Your task to perform on an android device: Go to Wikipedia Image 0: 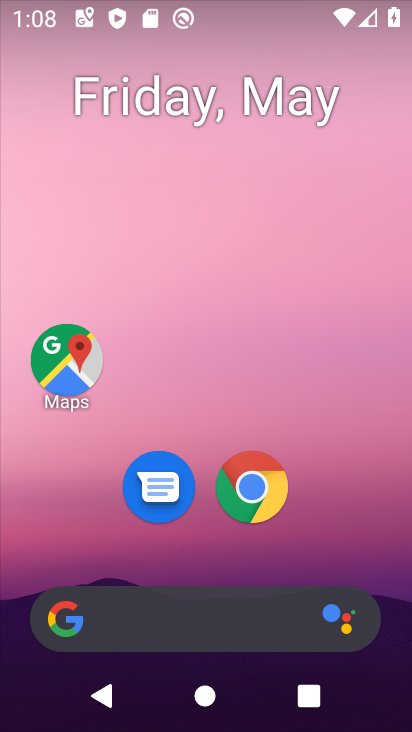
Step 0: click (208, 629)
Your task to perform on an android device: Go to Wikipedia Image 1: 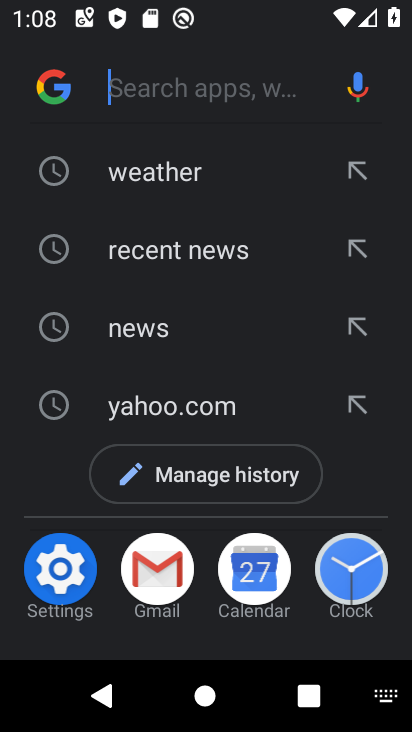
Step 1: press home button
Your task to perform on an android device: Go to Wikipedia Image 2: 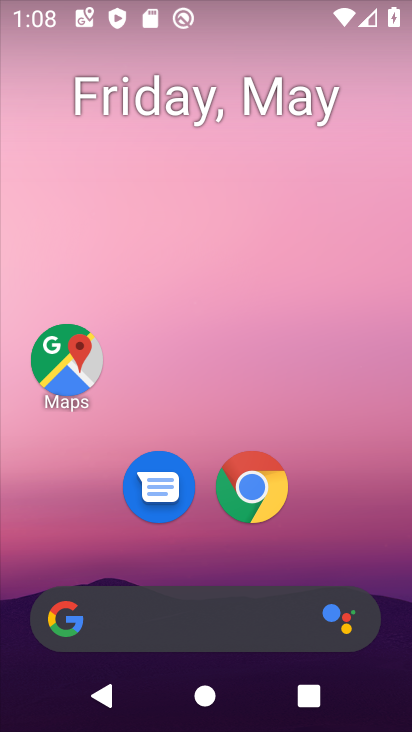
Step 2: click (246, 493)
Your task to perform on an android device: Go to Wikipedia Image 3: 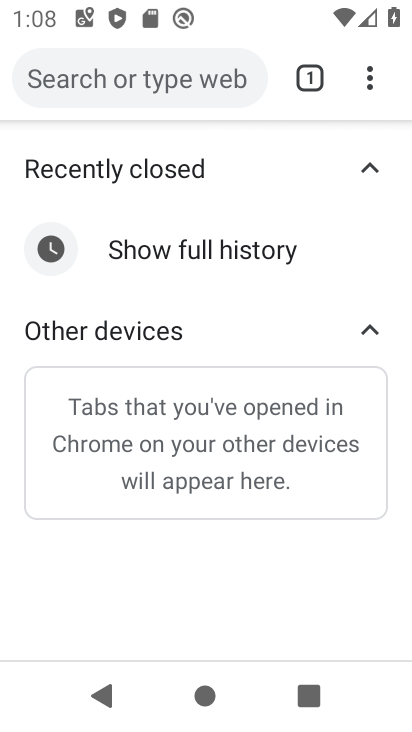
Step 3: click (311, 78)
Your task to perform on an android device: Go to Wikipedia Image 4: 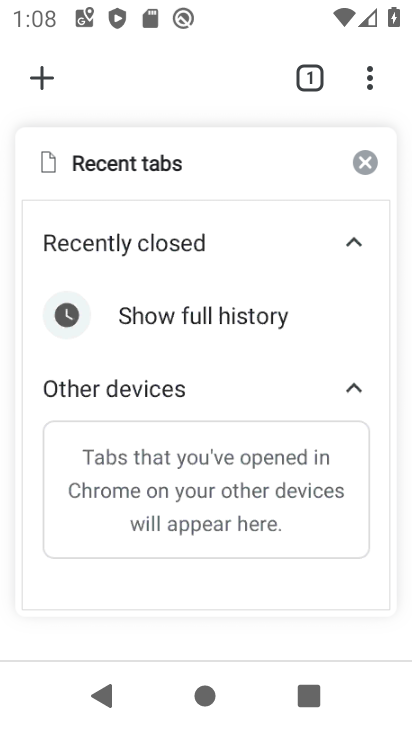
Step 4: click (43, 82)
Your task to perform on an android device: Go to Wikipedia Image 5: 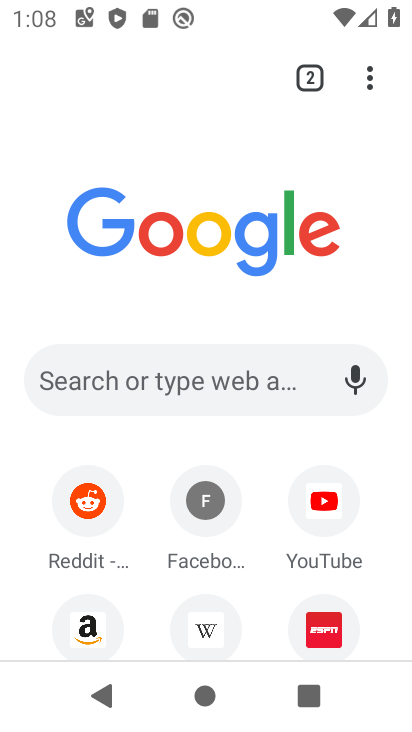
Step 5: click (199, 595)
Your task to perform on an android device: Go to Wikipedia Image 6: 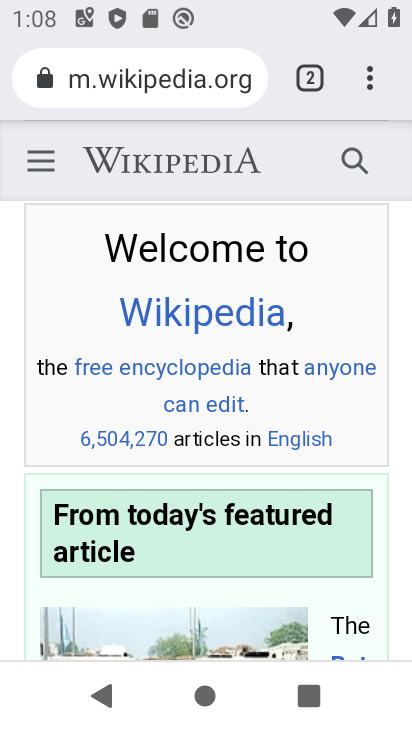
Step 6: task complete